Your task to perform on an android device: turn off notifications in google photos Image 0: 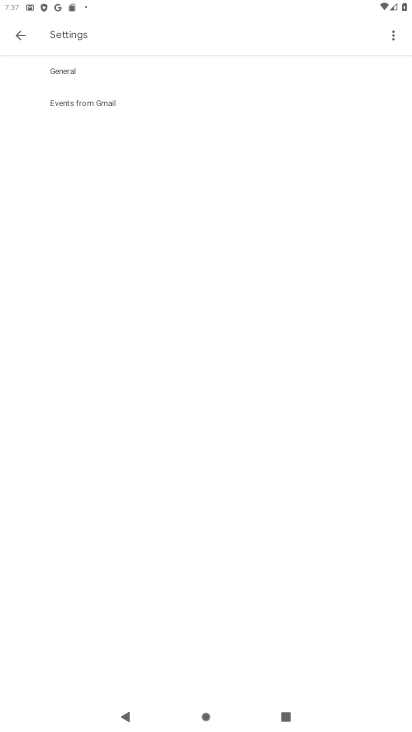
Step 0: press home button
Your task to perform on an android device: turn off notifications in google photos Image 1: 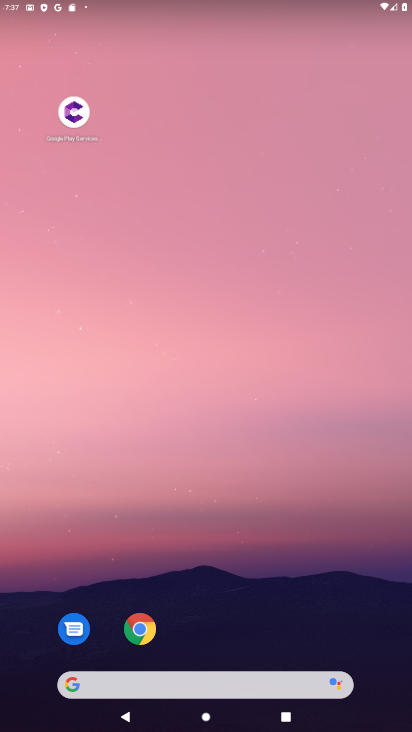
Step 1: drag from (209, 650) to (402, 92)
Your task to perform on an android device: turn off notifications in google photos Image 2: 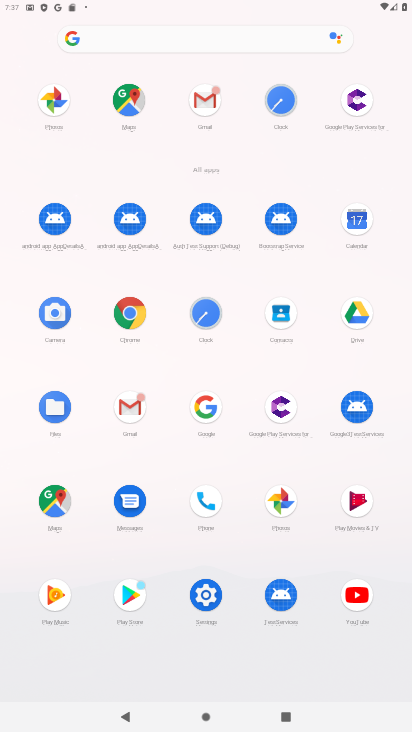
Step 2: click (286, 499)
Your task to perform on an android device: turn off notifications in google photos Image 3: 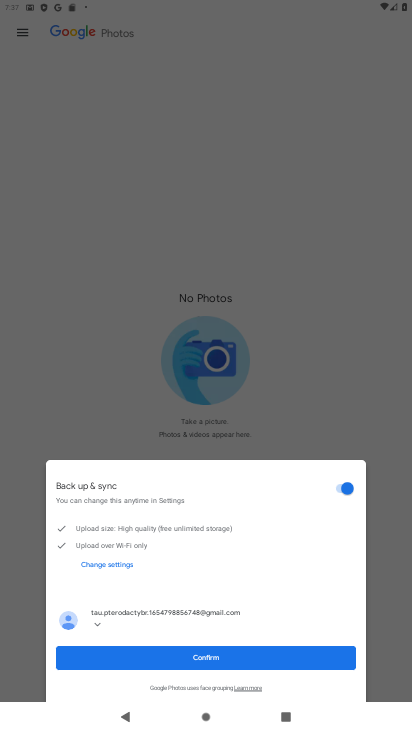
Step 3: click (206, 661)
Your task to perform on an android device: turn off notifications in google photos Image 4: 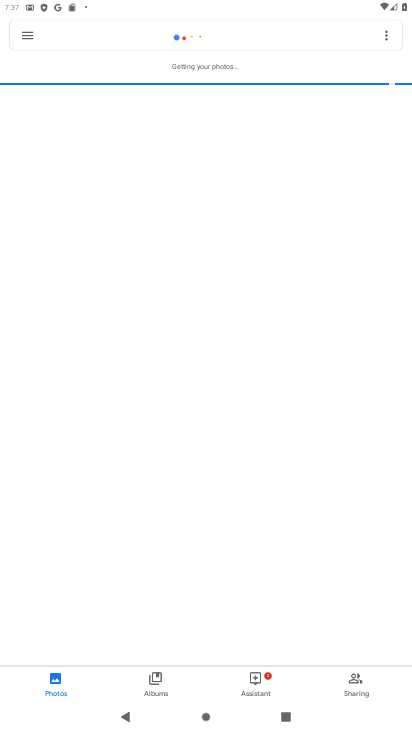
Step 4: click (26, 29)
Your task to perform on an android device: turn off notifications in google photos Image 5: 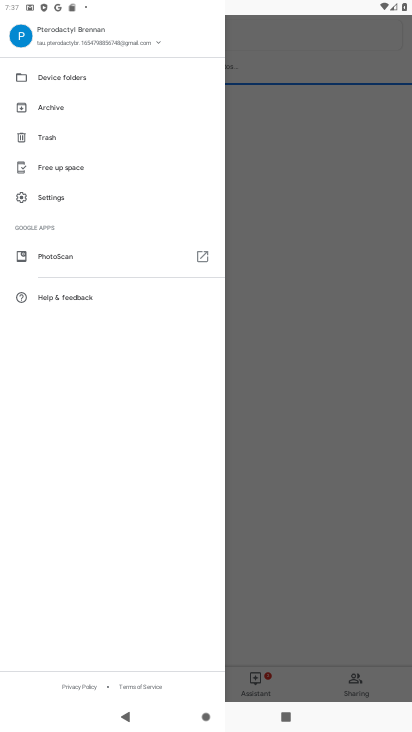
Step 5: click (60, 202)
Your task to perform on an android device: turn off notifications in google photos Image 6: 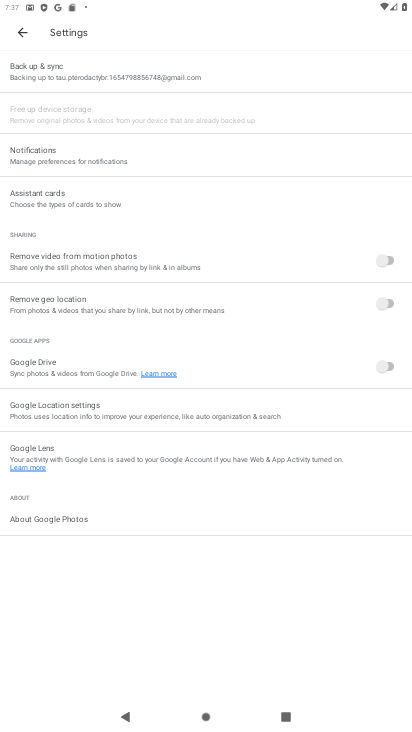
Step 6: click (36, 163)
Your task to perform on an android device: turn off notifications in google photos Image 7: 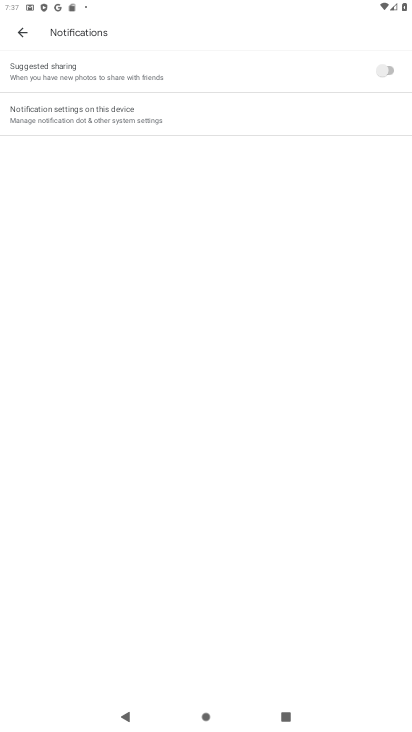
Step 7: click (191, 110)
Your task to perform on an android device: turn off notifications in google photos Image 8: 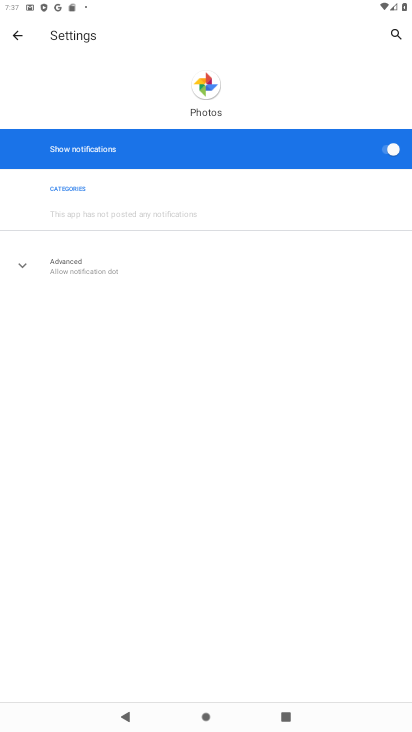
Step 8: click (396, 153)
Your task to perform on an android device: turn off notifications in google photos Image 9: 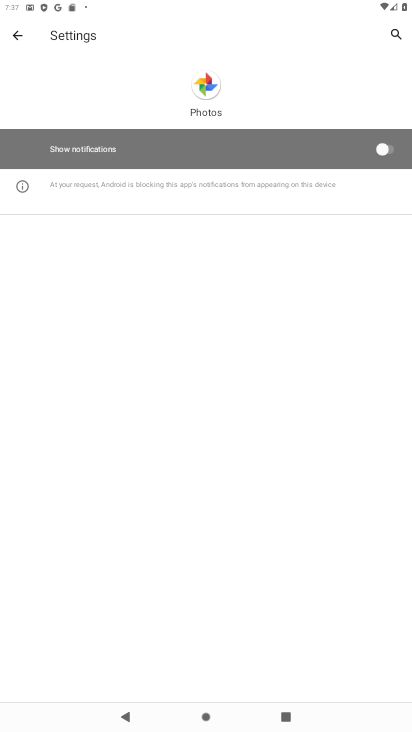
Step 9: task complete